Your task to perform on an android device: remove spam from my inbox in the gmail app Image 0: 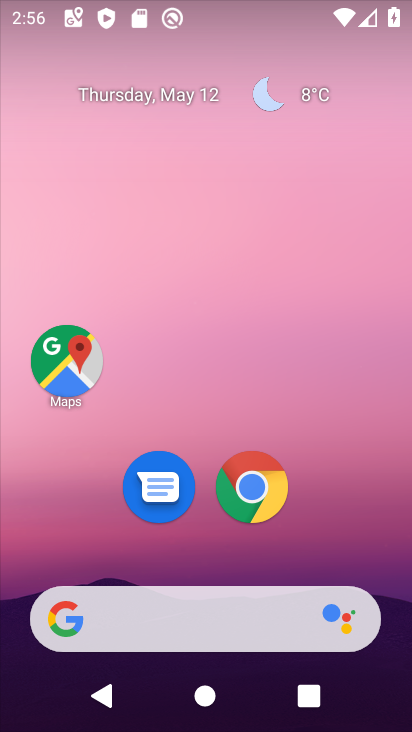
Step 0: drag from (334, 537) to (323, 152)
Your task to perform on an android device: remove spam from my inbox in the gmail app Image 1: 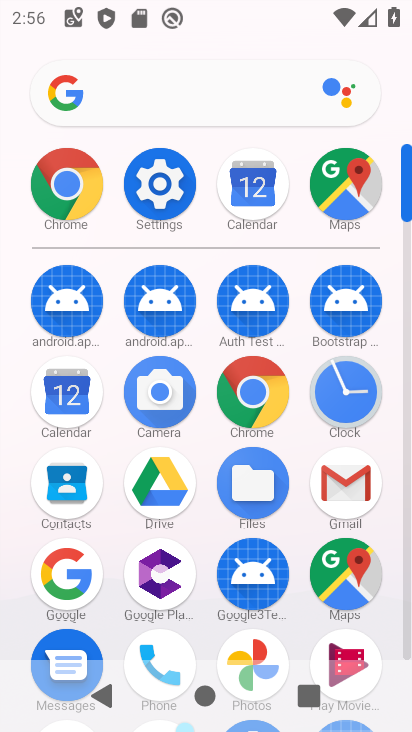
Step 1: drag from (204, 510) to (148, 566)
Your task to perform on an android device: remove spam from my inbox in the gmail app Image 2: 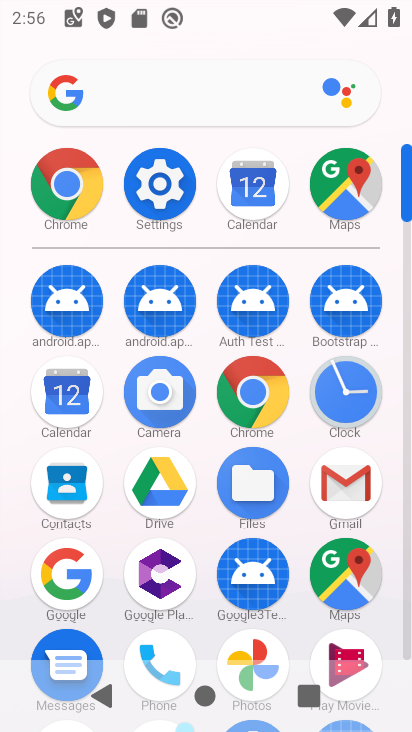
Step 2: click (355, 502)
Your task to perform on an android device: remove spam from my inbox in the gmail app Image 3: 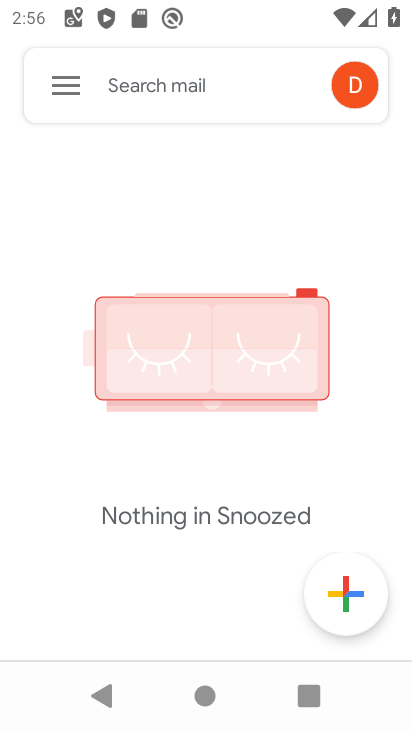
Step 3: click (45, 81)
Your task to perform on an android device: remove spam from my inbox in the gmail app Image 4: 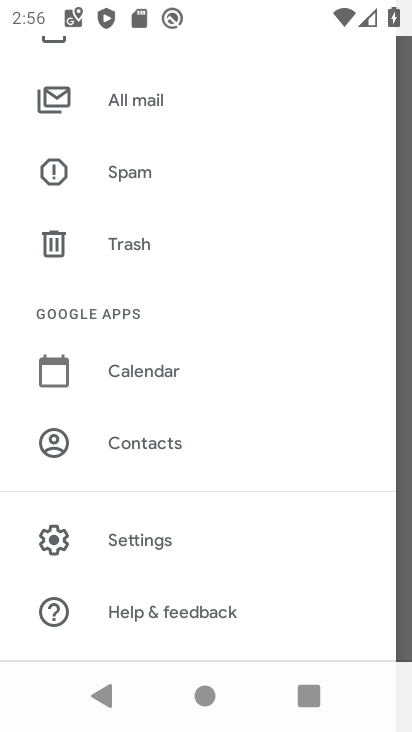
Step 4: drag from (202, 234) to (209, 449)
Your task to perform on an android device: remove spam from my inbox in the gmail app Image 5: 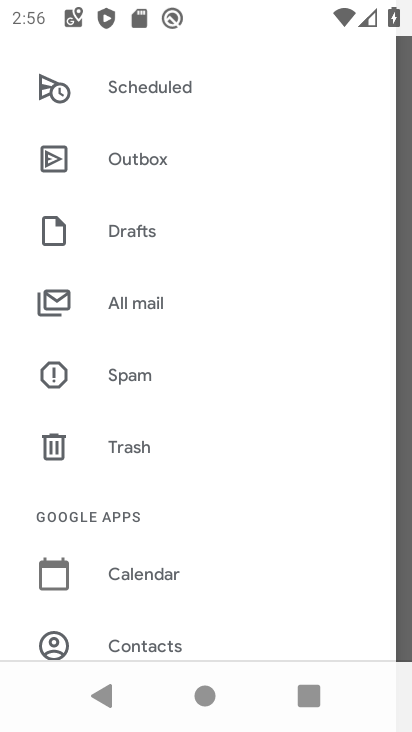
Step 5: drag from (270, 173) to (225, 539)
Your task to perform on an android device: remove spam from my inbox in the gmail app Image 6: 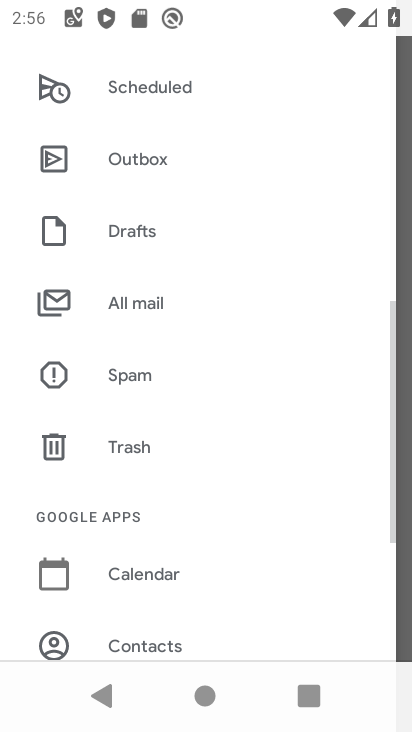
Step 6: drag from (118, 156) to (144, 531)
Your task to perform on an android device: remove spam from my inbox in the gmail app Image 7: 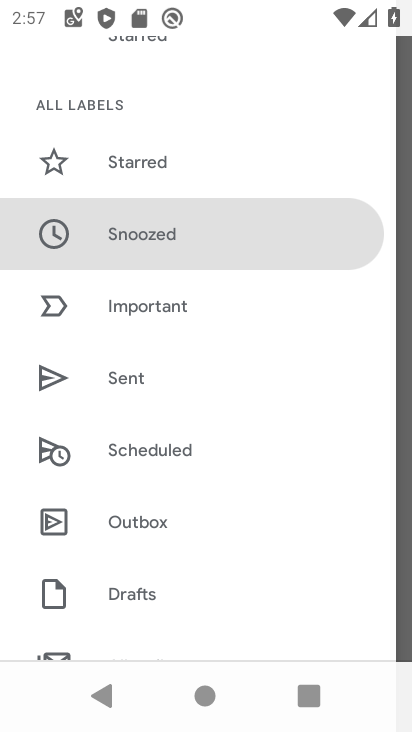
Step 7: drag from (127, 191) to (142, 554)
Your task to perform on an android device: remove spam from my inbox in the gmail app Image 8: 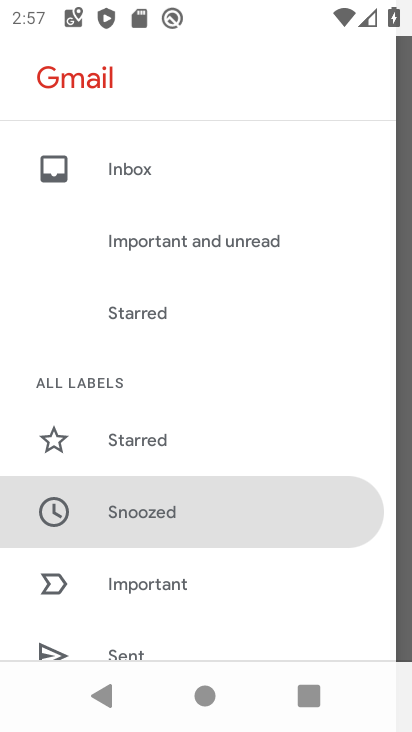
Step 8: click (130, 172)
Your task to perform on an android device: remove spam from my inbox in the gmail app Image 9: 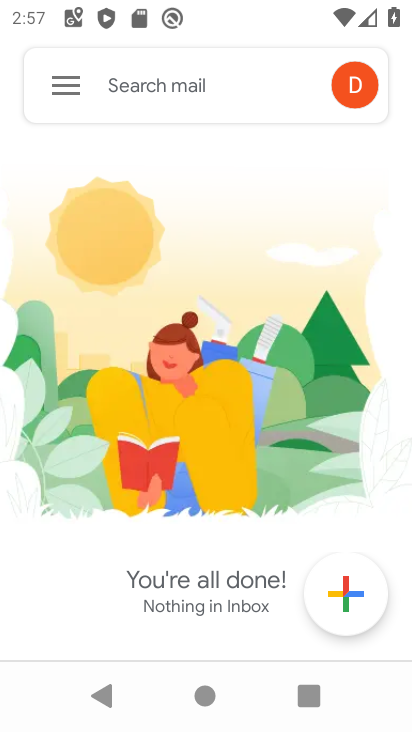
Step 9: task complete